Your task to perform on an android device: set default search engine in the chrome app Image 0: 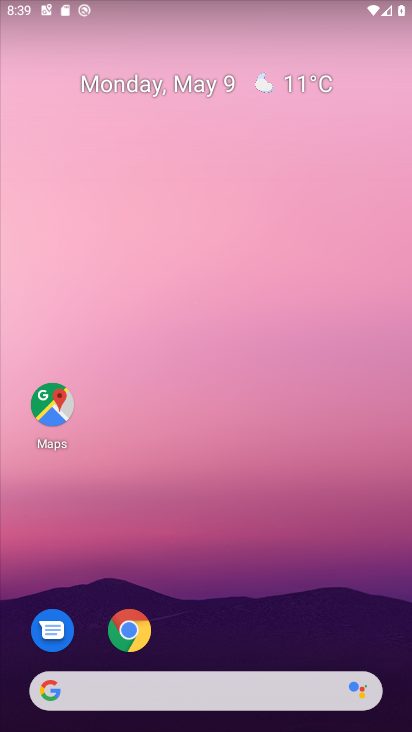
Step 0: click (141, 635)
Your task to perform on an android device: set default search engine in the chrome app Image 1: 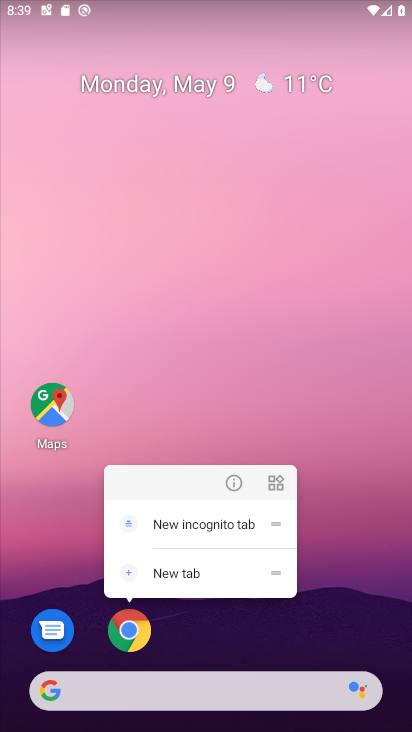
Step 1: click (139, 635)
Your task to perform on an android device: set default search engine in the chrome app Image 2: 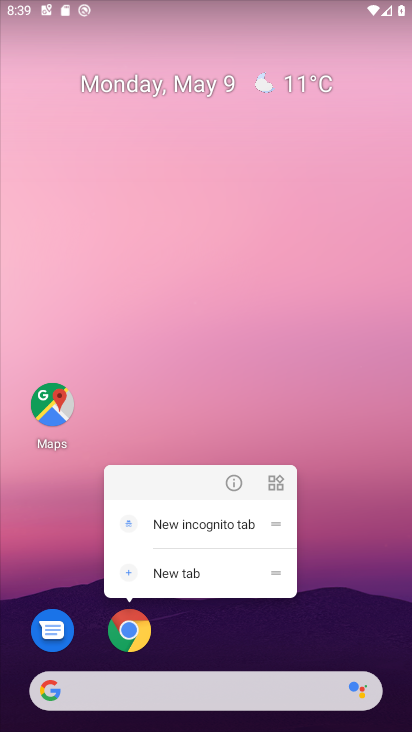
Step 2: click (124, 642)
Your task to perform on an android device: set default search engine in the chrome app Image 3: 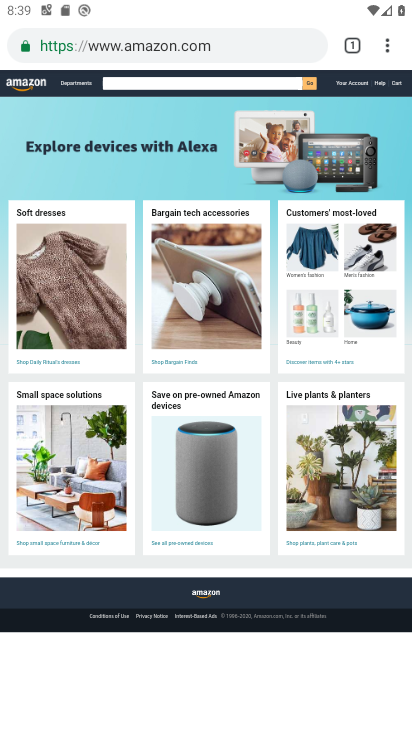
Step 3: drag from (384, 52) to (222, 547)
Your task to perform on an android device: set default search engine in the chrome app Image 4: 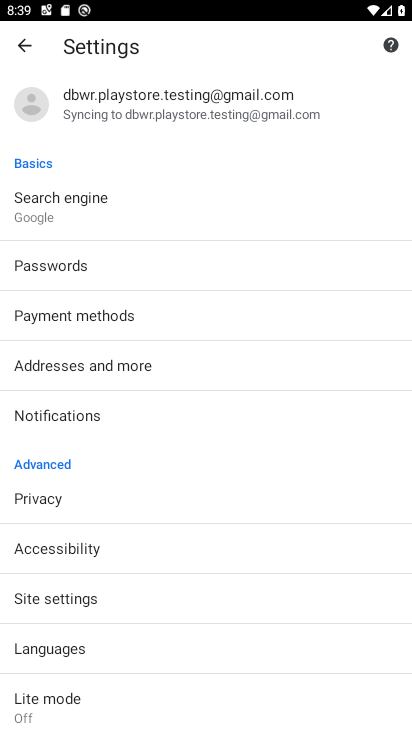
Step 4: click (67, 201)
Your task to perform on an android device: set default search engine in the chrome app Image 5: 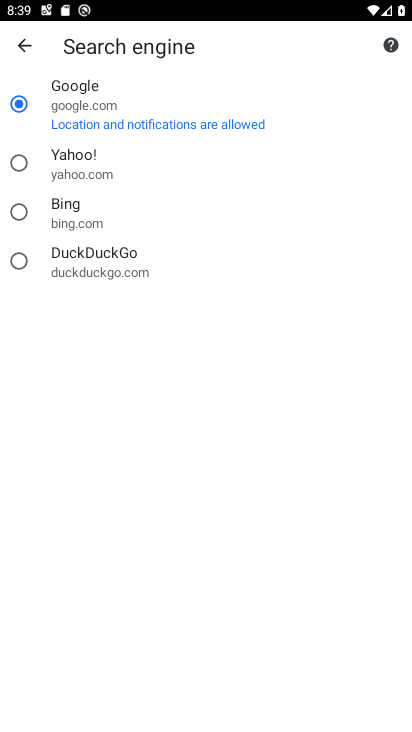
Step 5: click (68, 208)
Your task to perform on an android device: set default search engine in the chrome app Image 6: 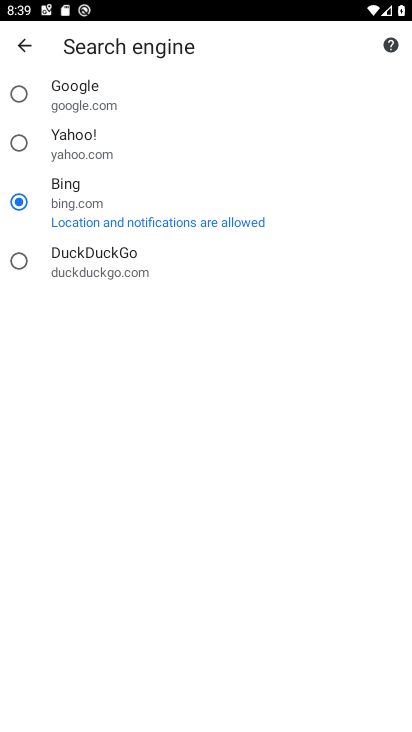
Step 6: task complete